Your task to perform on an android device: open chrome privacy settings Image 0: 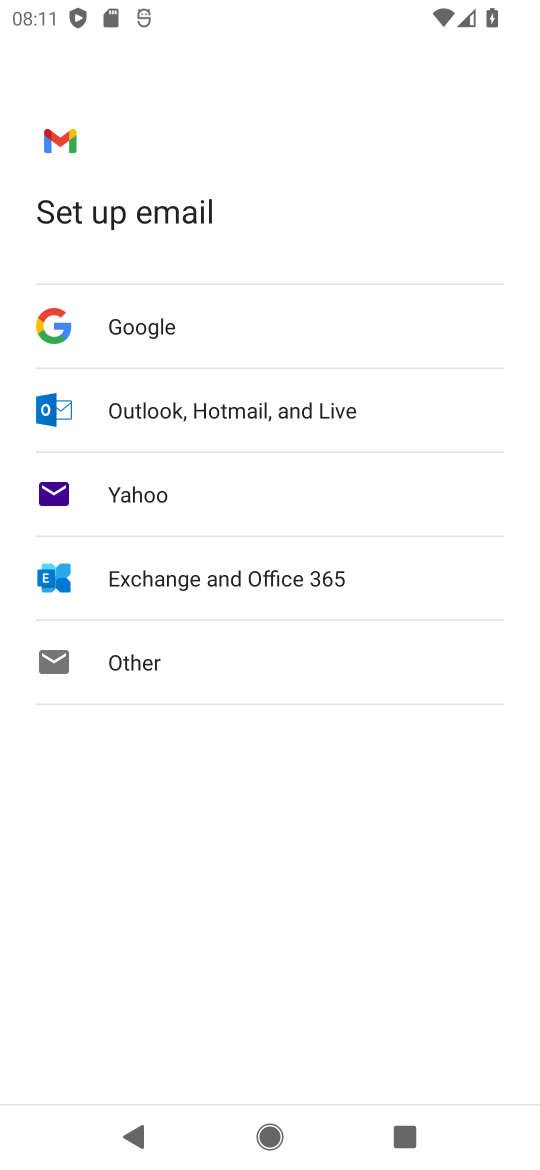
Step 0: press home button
Your task to perform on an android device: open chrome privacy settings Image 1: 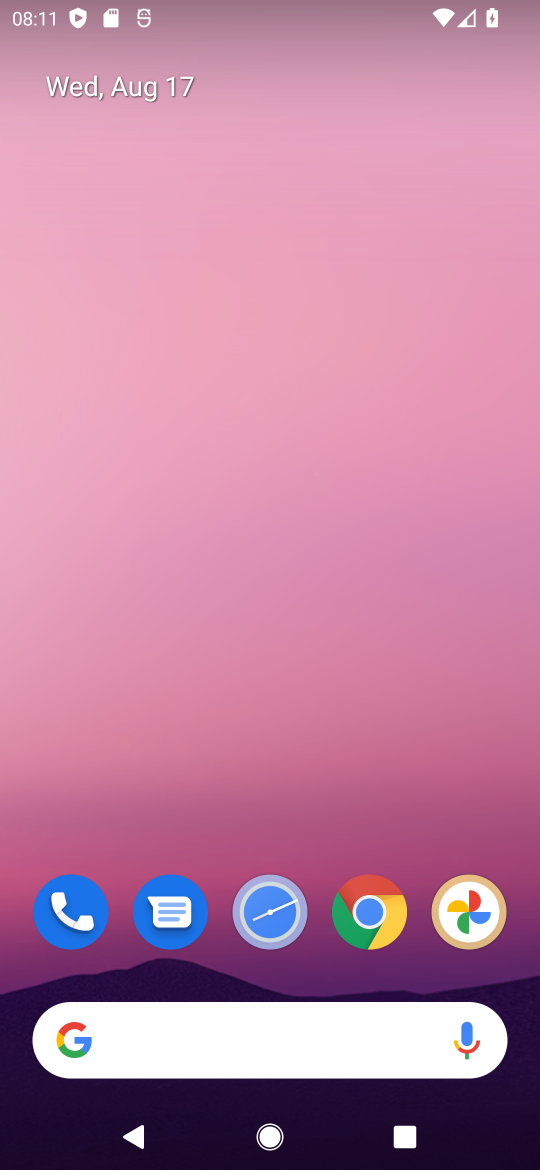
Step 1: drag from (260, 768) to (254, 277)
Your task to perform on an android device: open chrome privacy settings Image 2: 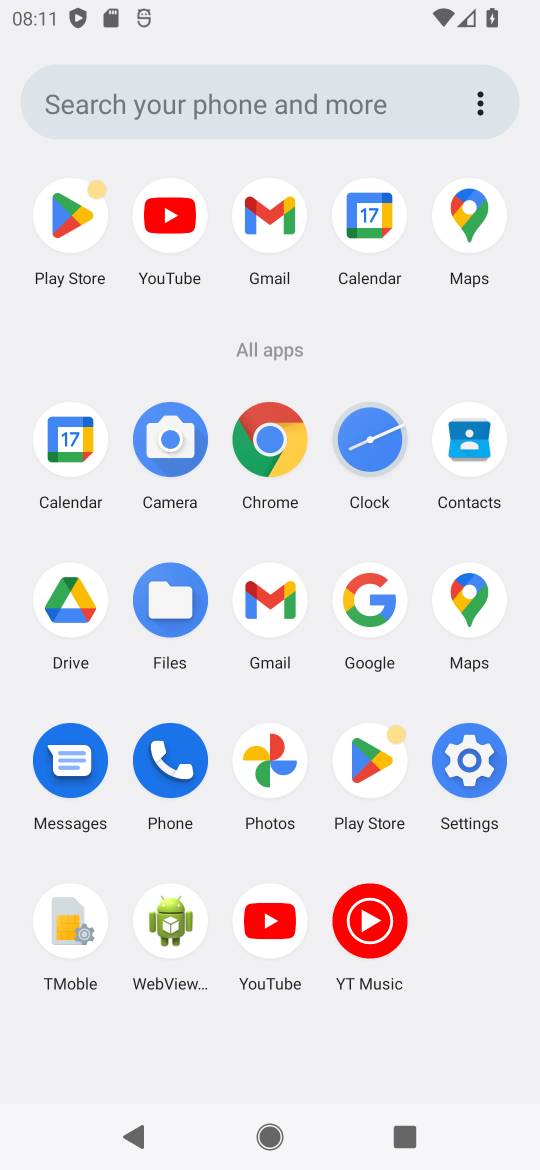
Step 2: click (261, 455)
Your task to perform on an android device: open chrome privacy settings Image 3: 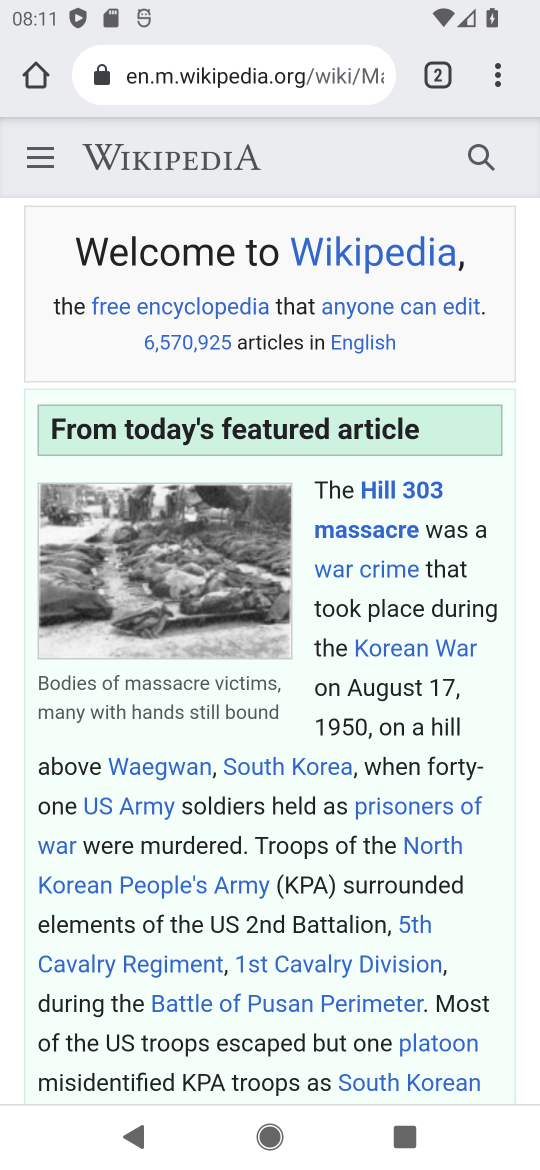
Step 3: click (500, 68)
Your task to perform on an android device: open chrome privacy settings Image 4: 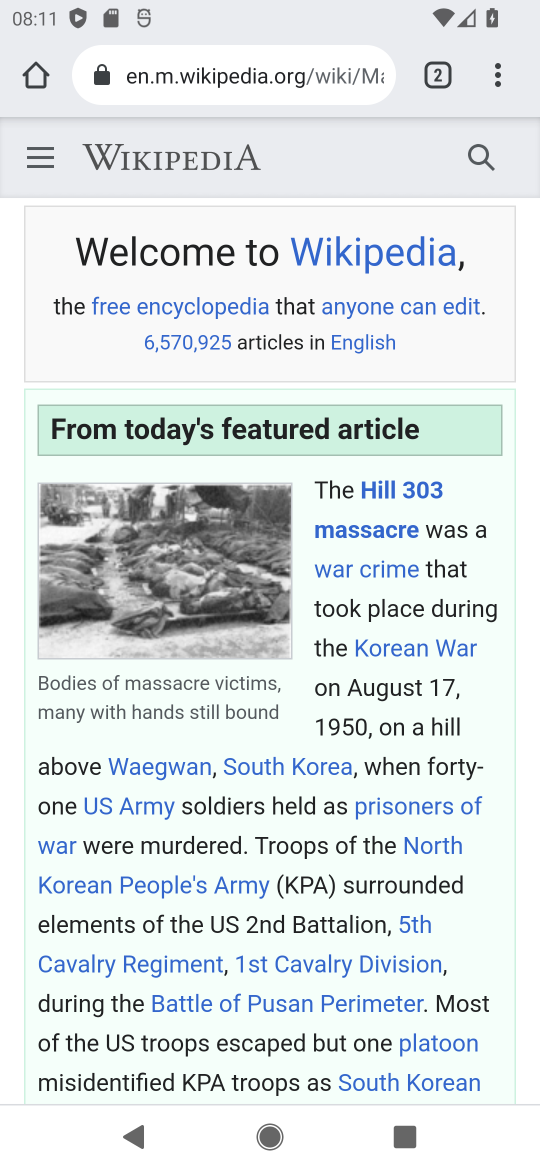
Step 4: click (492, 67)
Your task to perform on an android device: open chrome privacy settings Image 5: 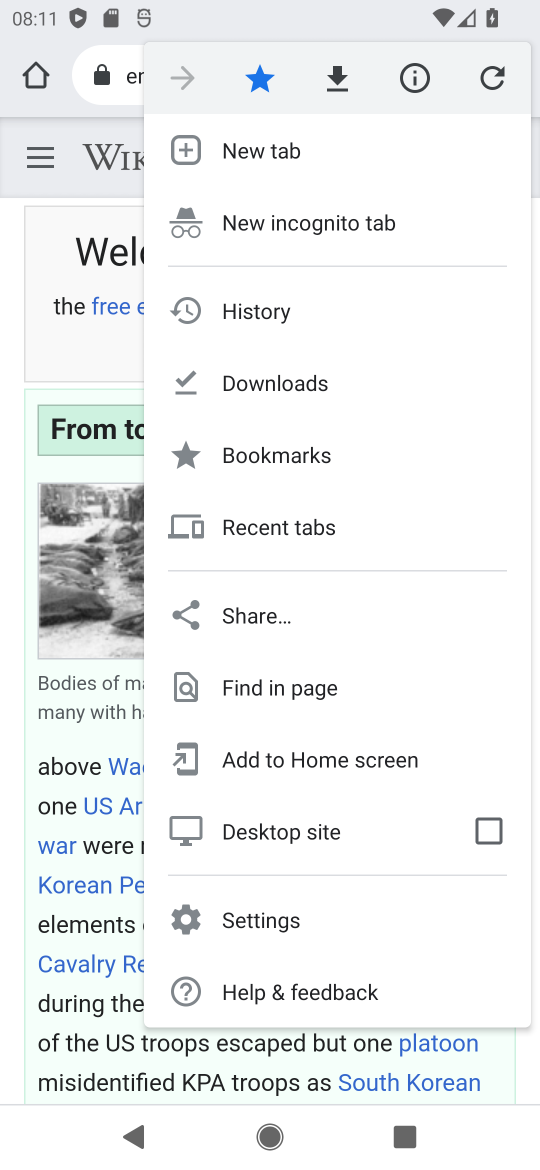
Step 5: click (242, 933)
Your task to perform on an android device: open chrome privacy settings Image 6: 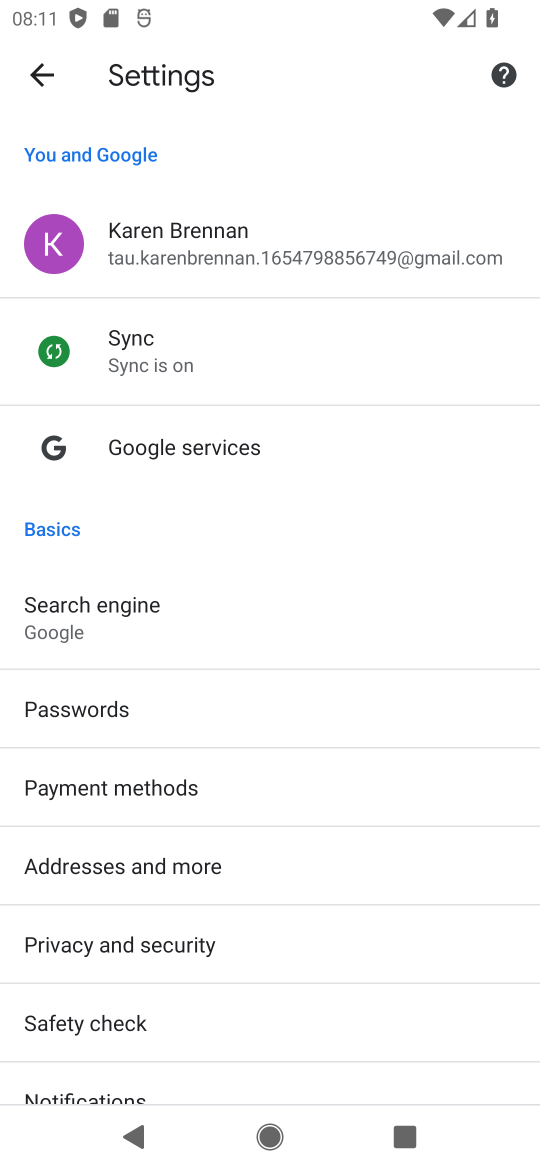
Step 6: click (98, 961)
Your task to perform on an android device: open chrome privacy settings Image 7: 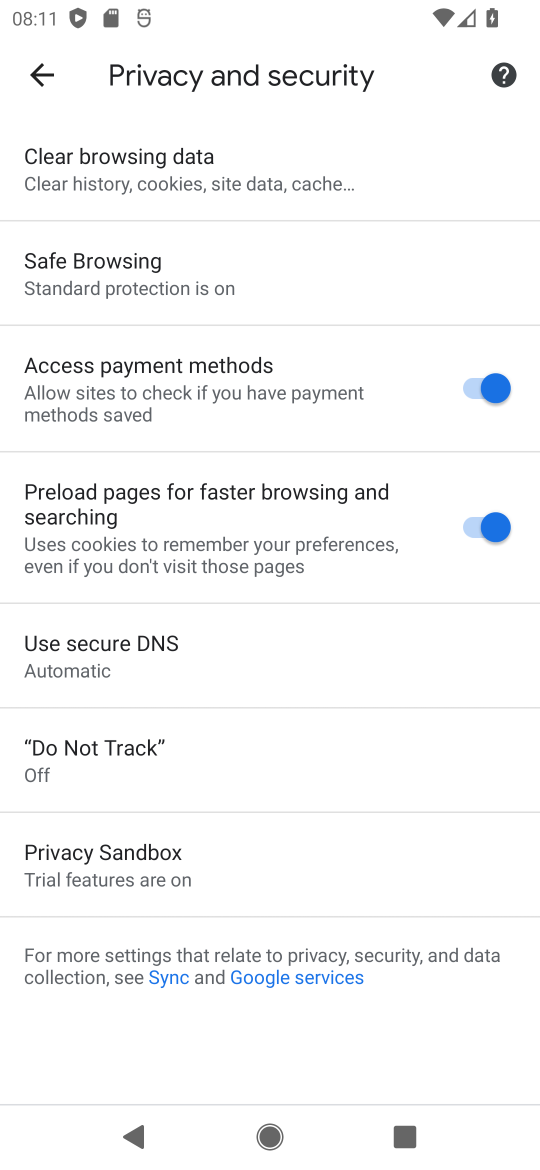
Step 7: task complete